Your task to perform on an android device: turn notification dots on Image 0: 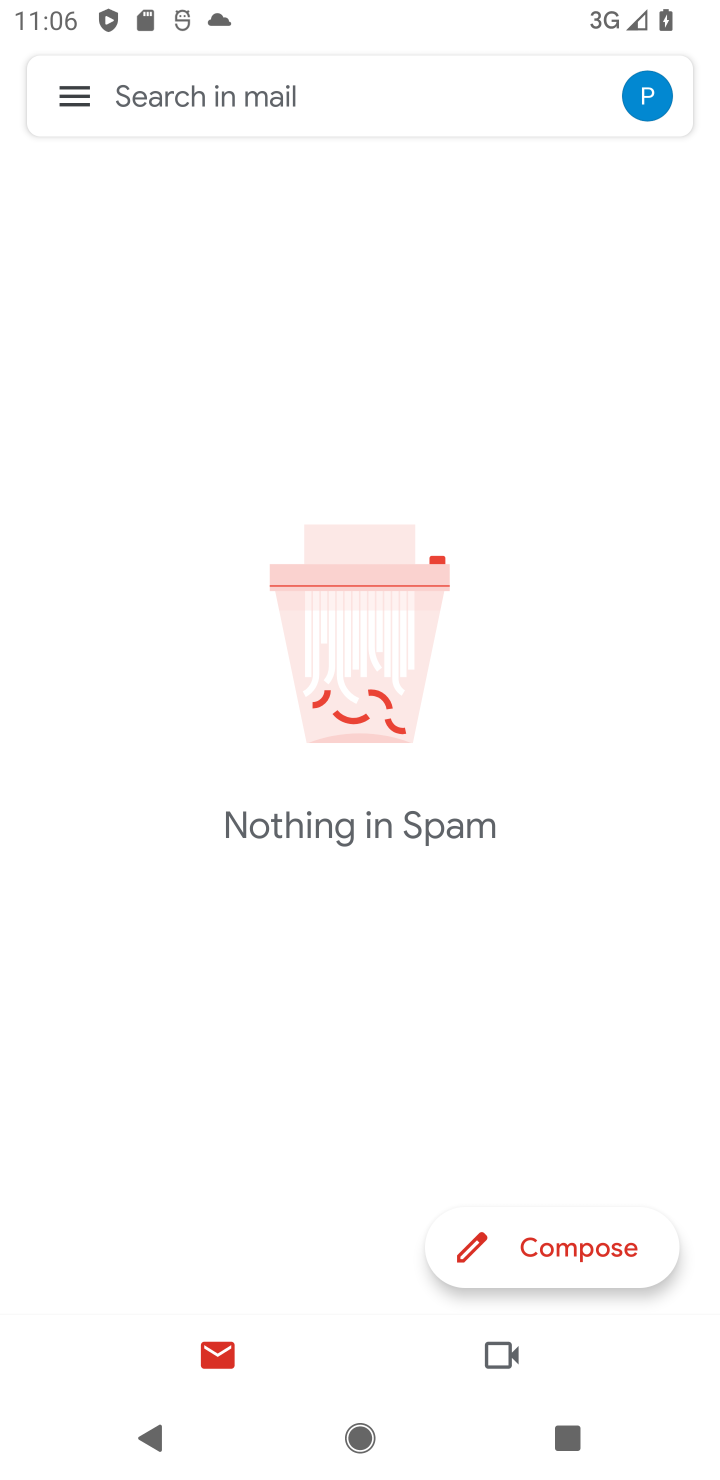
Step 0: press home button
Your task to perform on an android device: turn notification dots on Image 1: 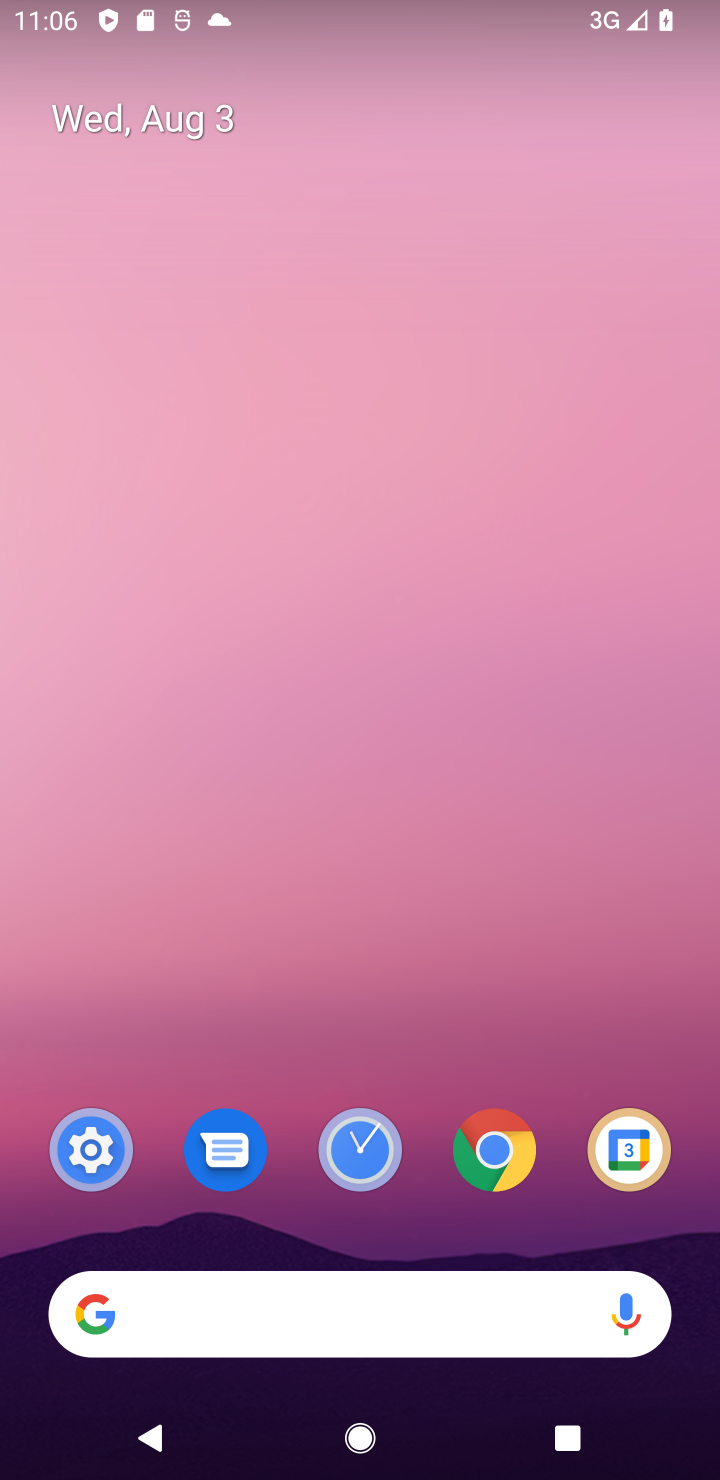
Step 1: drag from (540, 1052) to (561, 289)
Your task to perform on an android device: turn notification dots on Image 2: 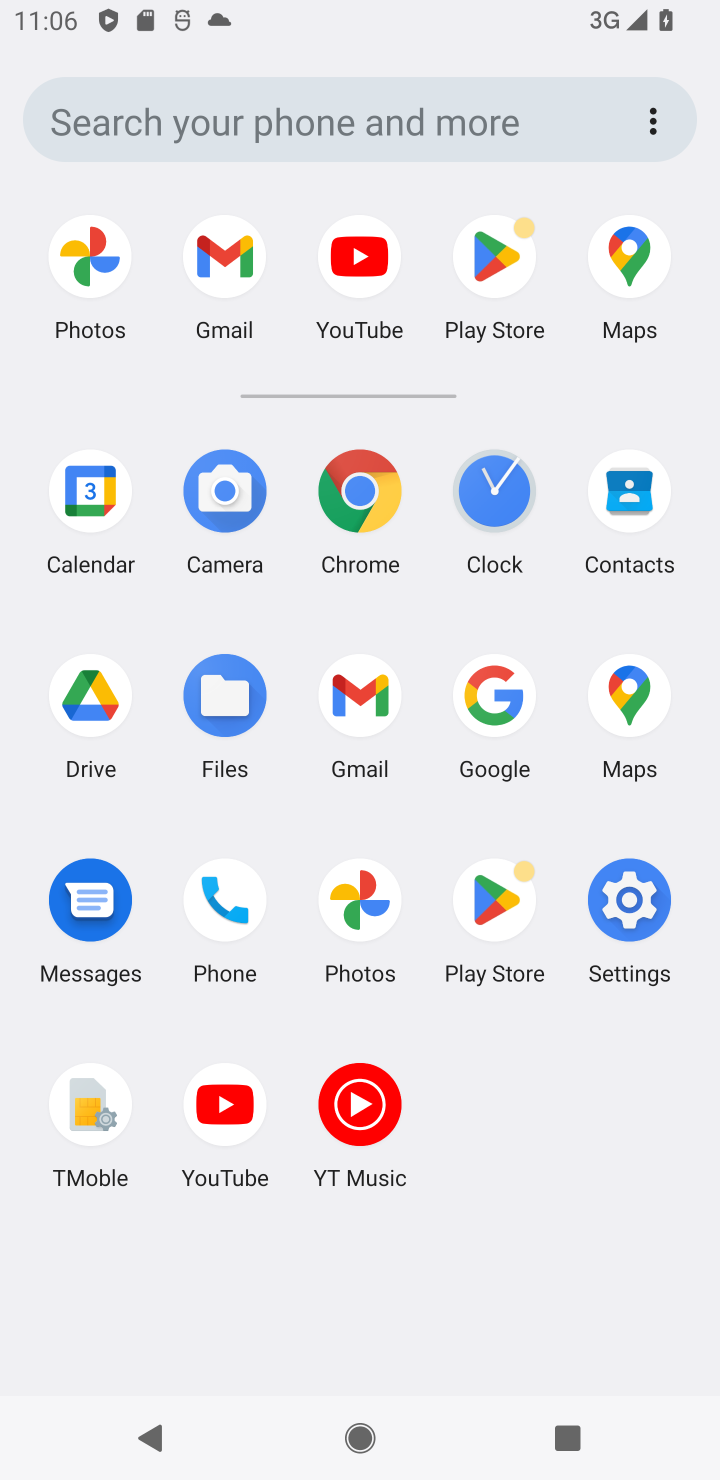
Step 2: click (638, 908)
Your task to perform on an android device: turn notification dots on Image 3: 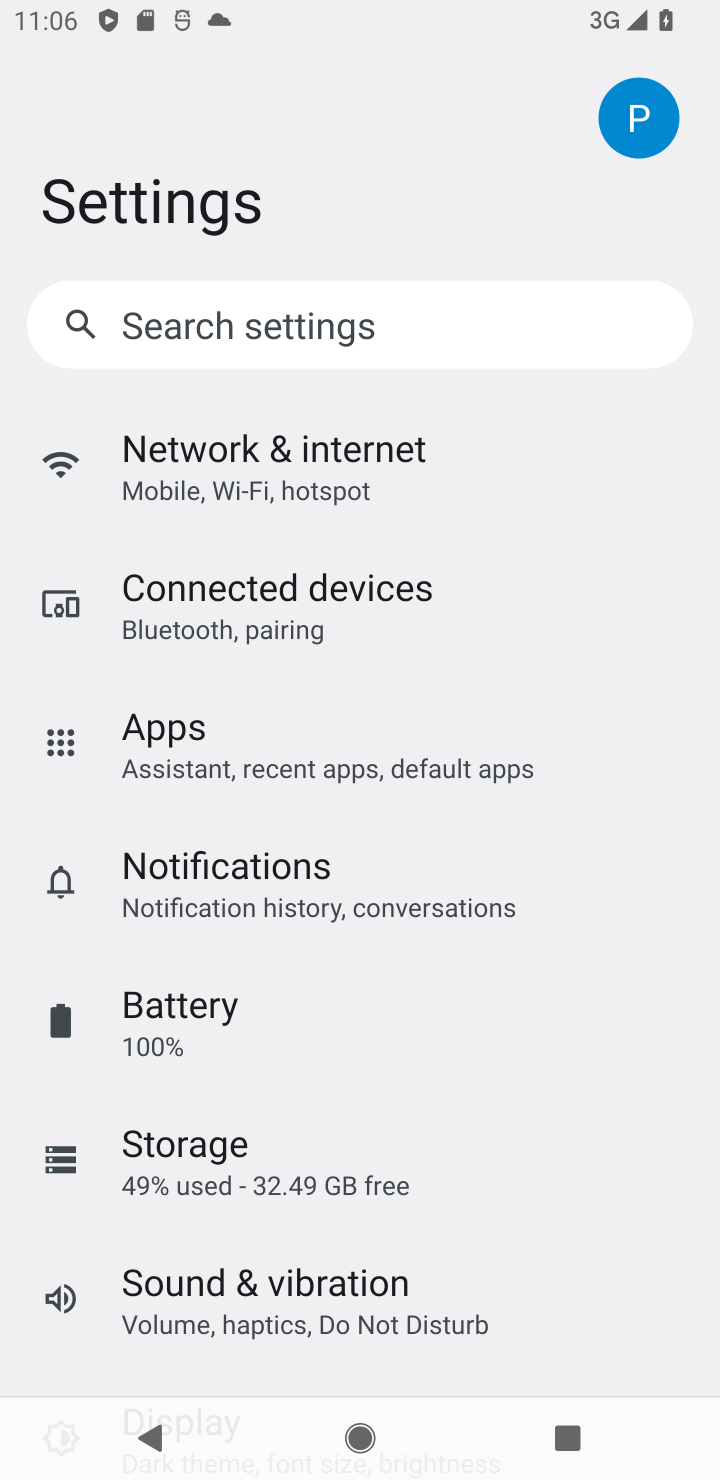
Step 3: drag from (565, 1178) to (570, 949)
Your task to perform on an android device: turn notification dots on Image 4: 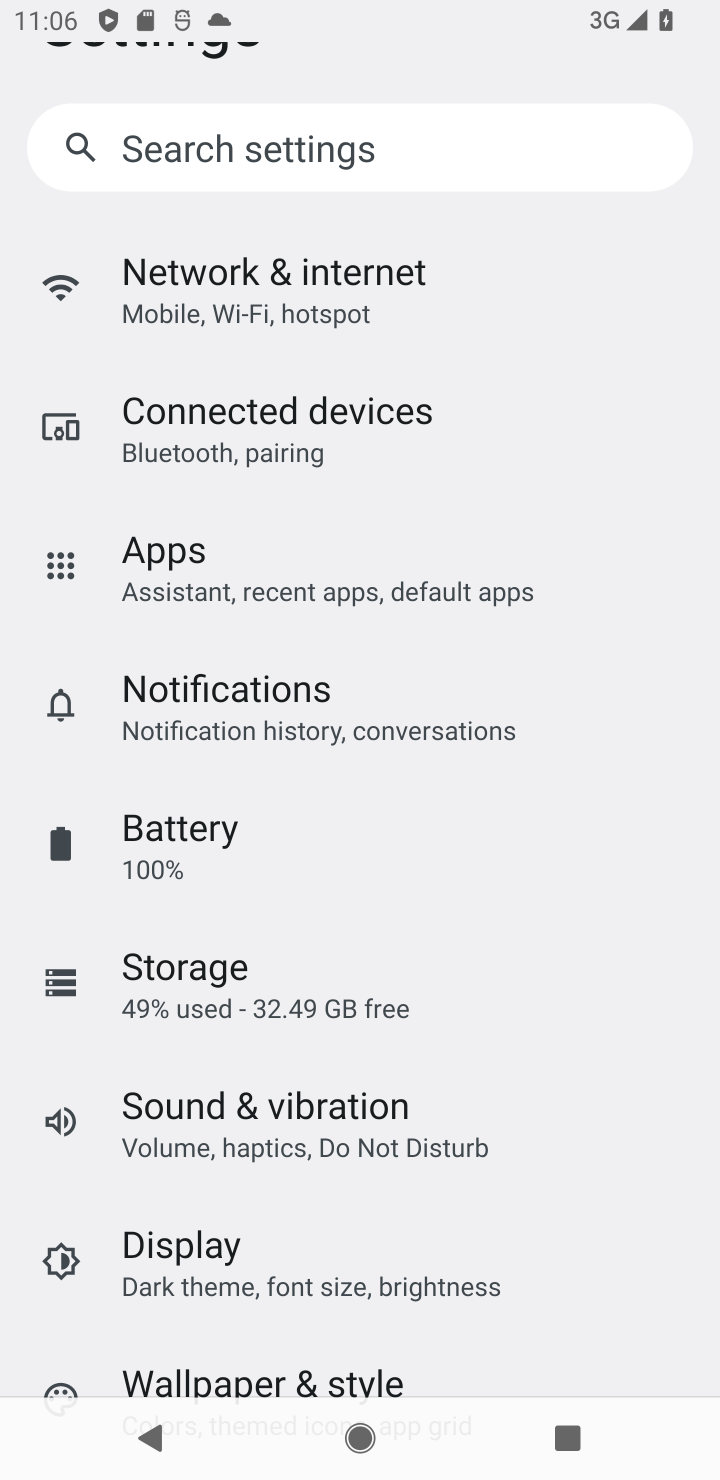
Step 4: drag from (536, 1093) to (530, 783)
Your task to perform on an android device: turn notification dots on Image 5: 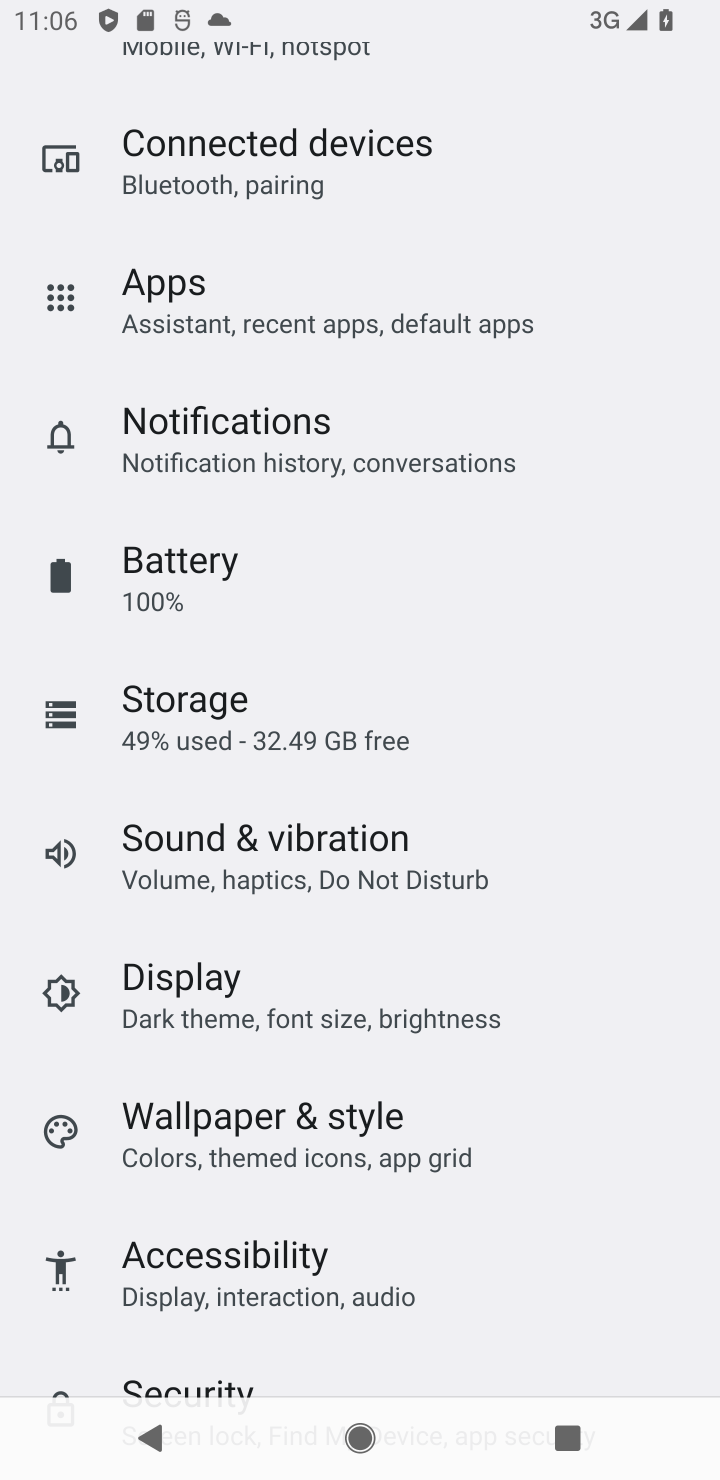
Step 5: drag from (571, 1090) to (575, 829)
Your task to perform on an android device: turn notification dots on Image 6: 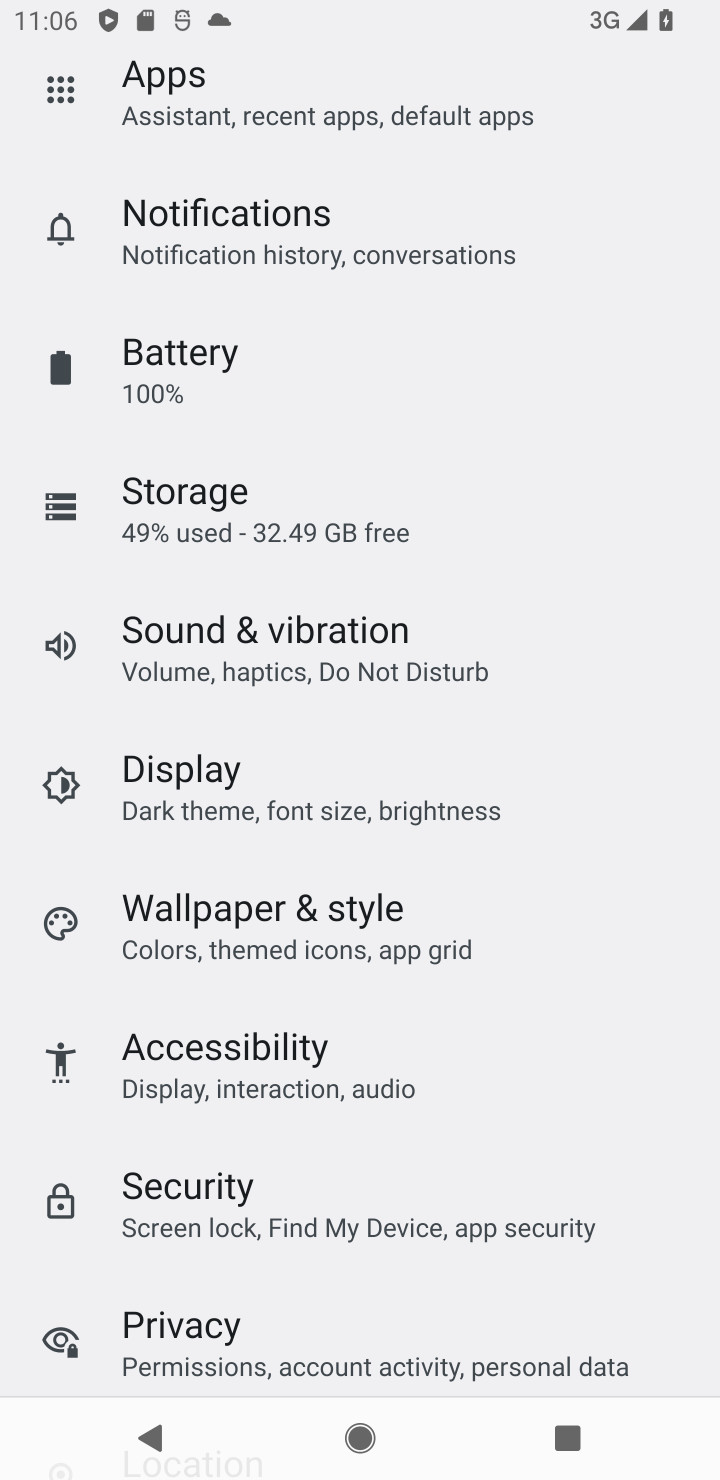
Step 6: drag from (543, 1243) to (578, 902)
Your task to perform on an android device: turn notification dots on Image 7: 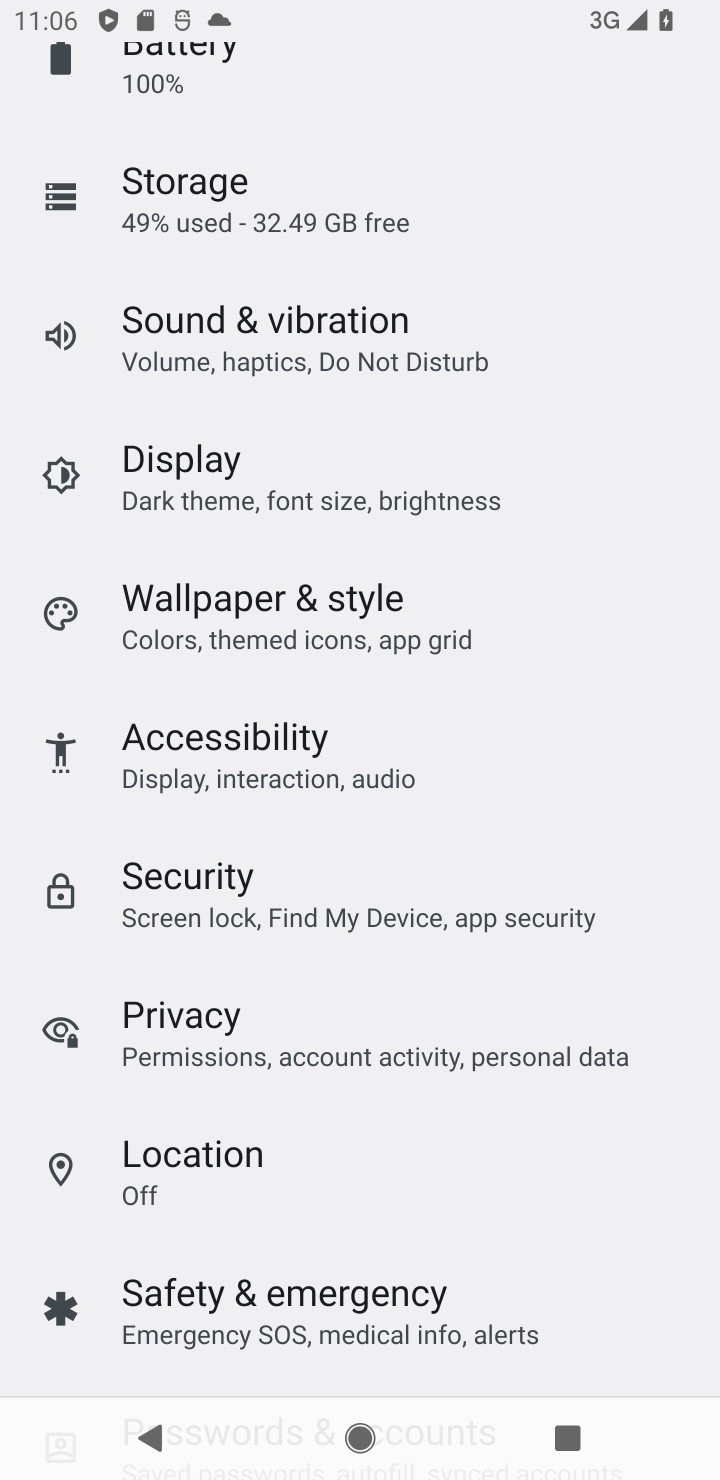
Step 7: drag from (570, 1247) to (600, 995)
Your task to perform on an android device: turn notification dots on Image 8: 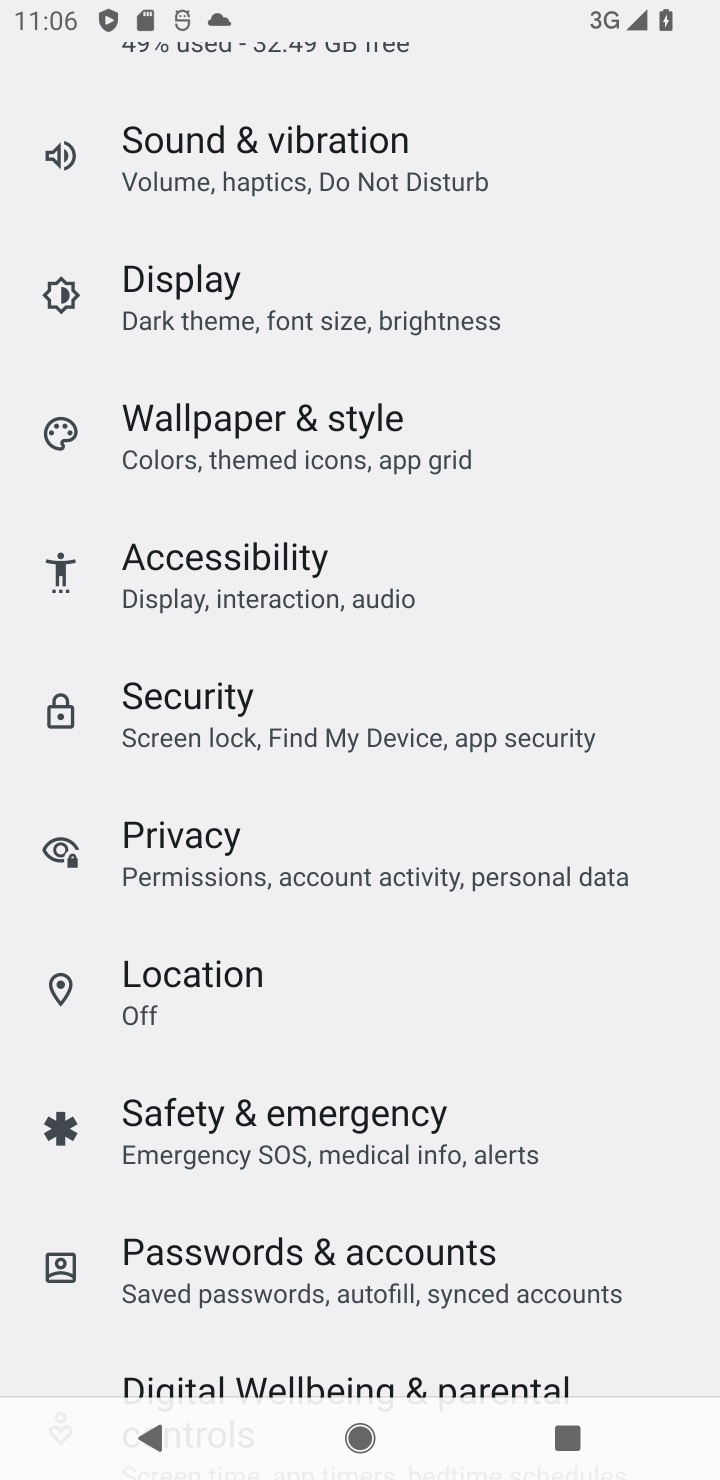
Step 8: drag from (582, 1082) to (606, 744)
Your task to perform on an android device: turn notification dots on Image 9: 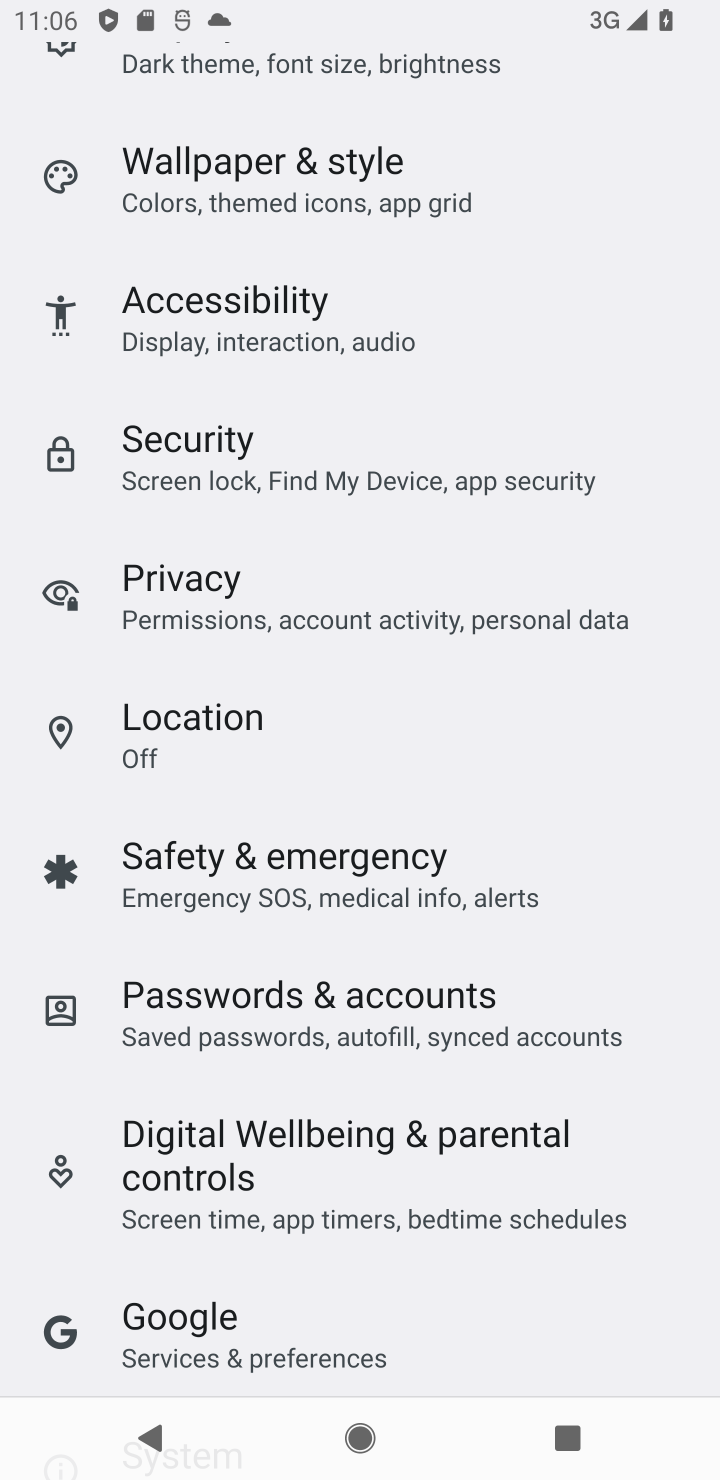
Step 9: drag from (568, 1021) to (568, 682)
Your task to perform on an android device: turn notification dots on Image 10: 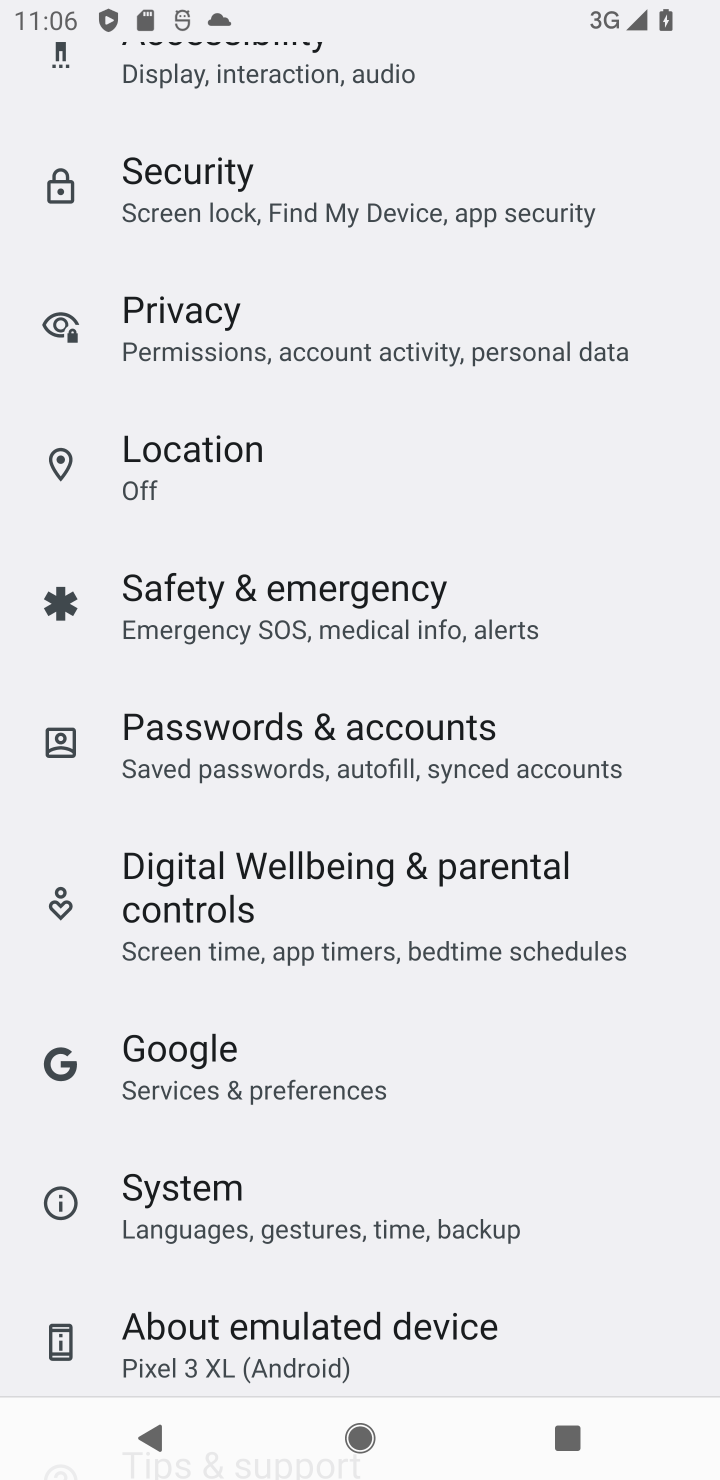
Step 10: drag from (557, 1131) to (556, 695)
Your task to perform on an android device: turn notification dots on Image 11: 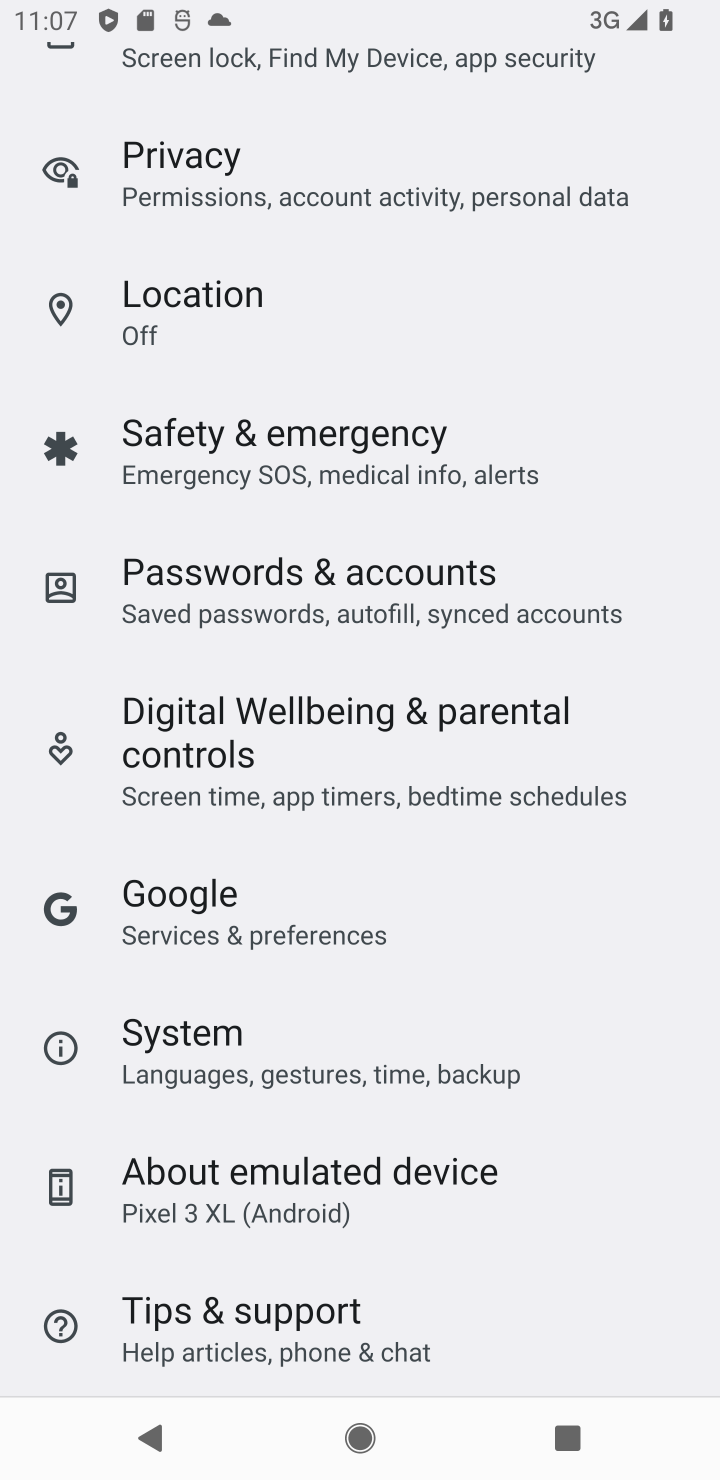
Step 11: drag from (570, 1035) to (566, 721)
Your task to perform on an android device: turn notification dots on Image 12: 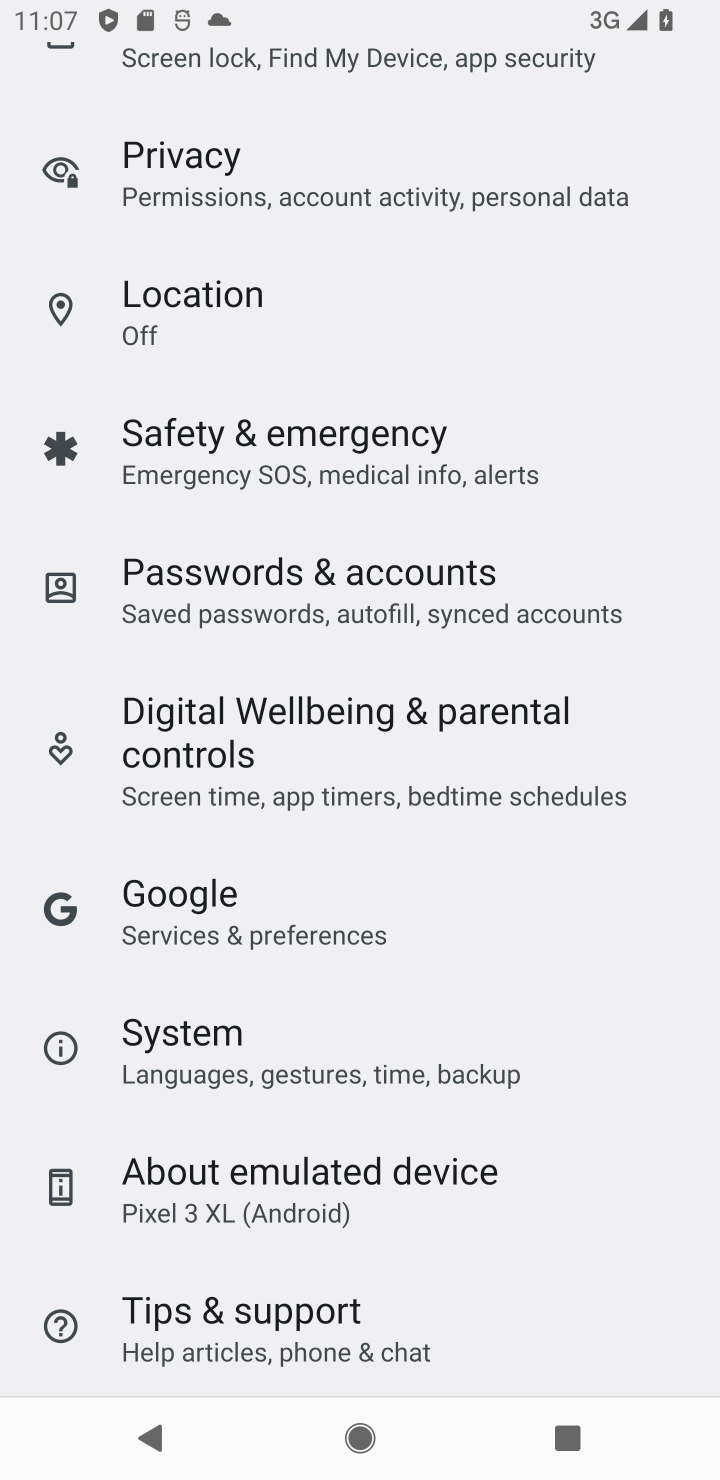
Step 12: drag from (660, 454) to (627, 723)
Your task to perform on an android device: turn notification dots on Image 13: 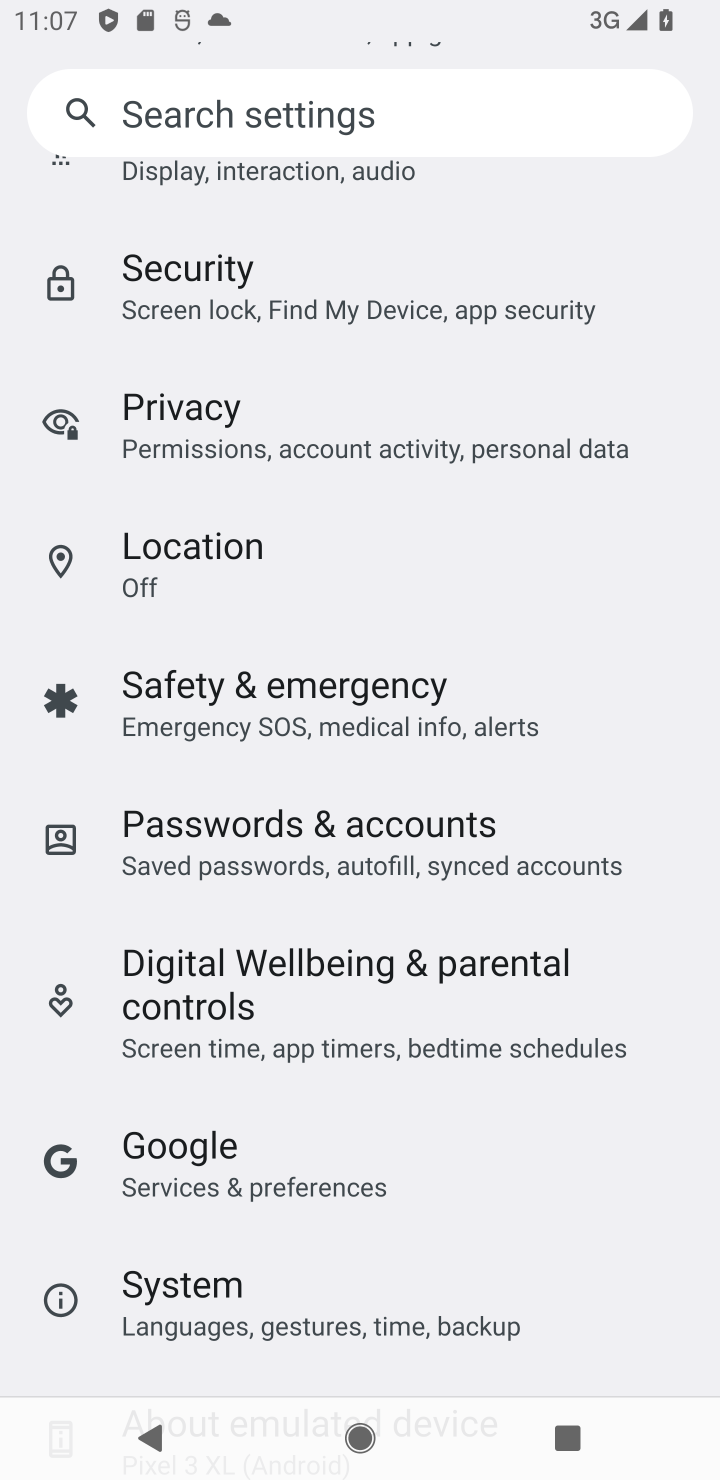
Step 13: drag from (627, 518) to (610, 813)
Your task to perform on an android device: turn notification dots on Image 14: 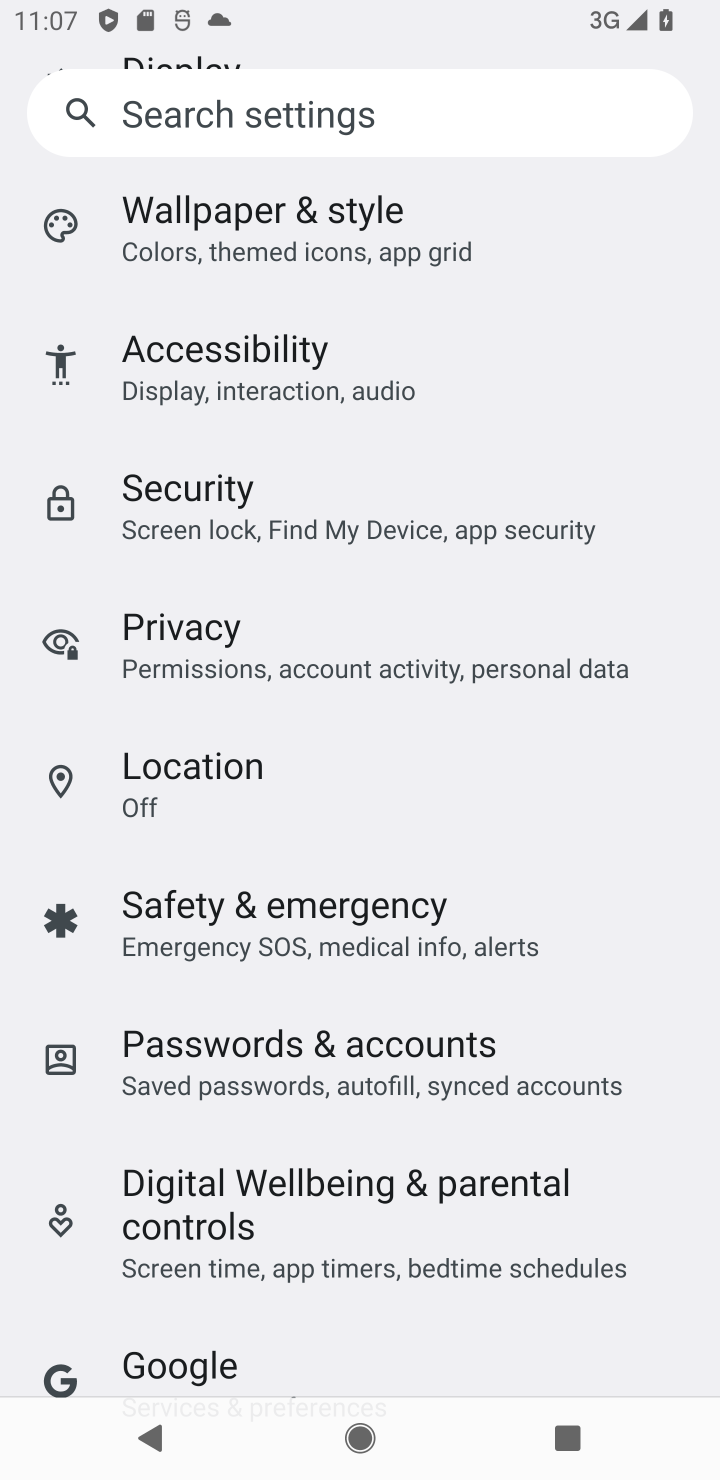
Step 14: drag from (652, 445) to (642, 832)
Your task to perform on an android device: turn notification dots on Image 15: 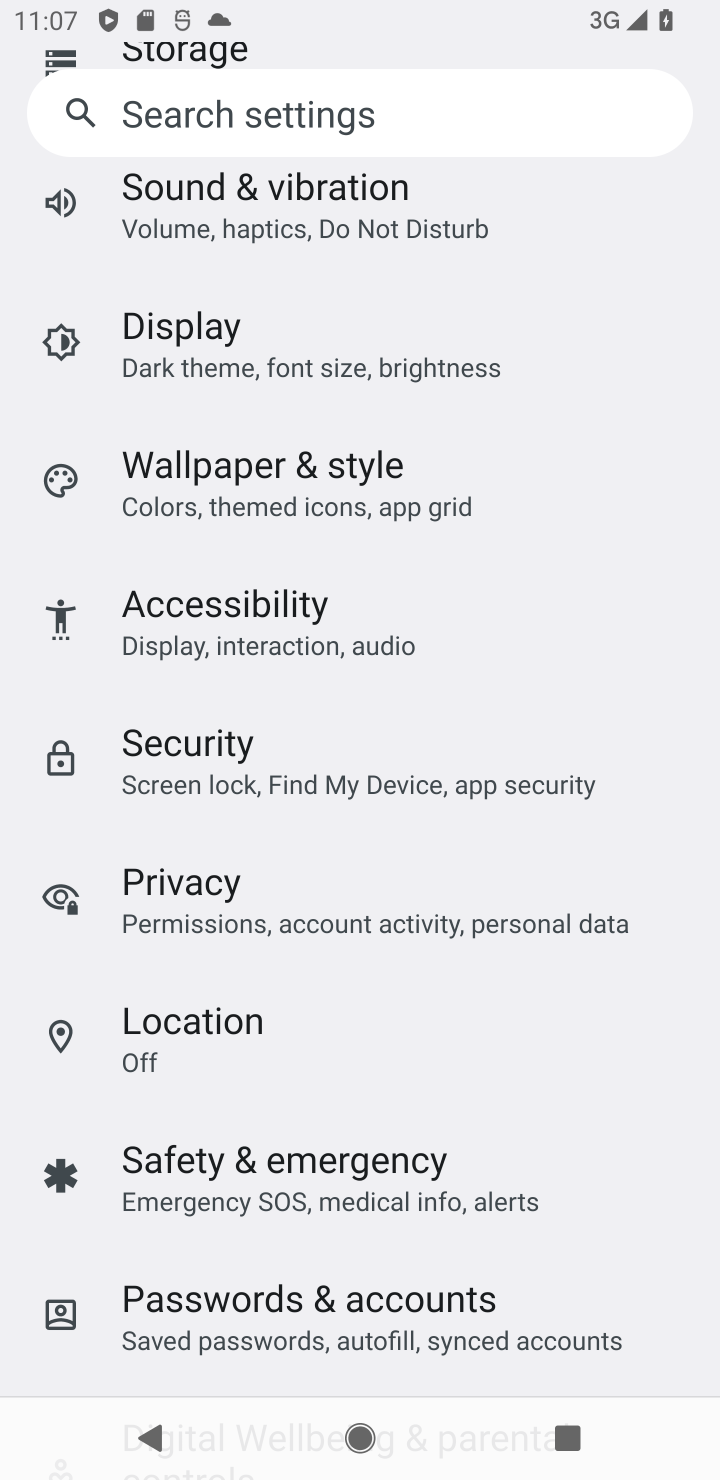
Step 15: drag from (584, 529) to (633, 843)
Your task to perform on an android device: turn notification dots on Image 16: 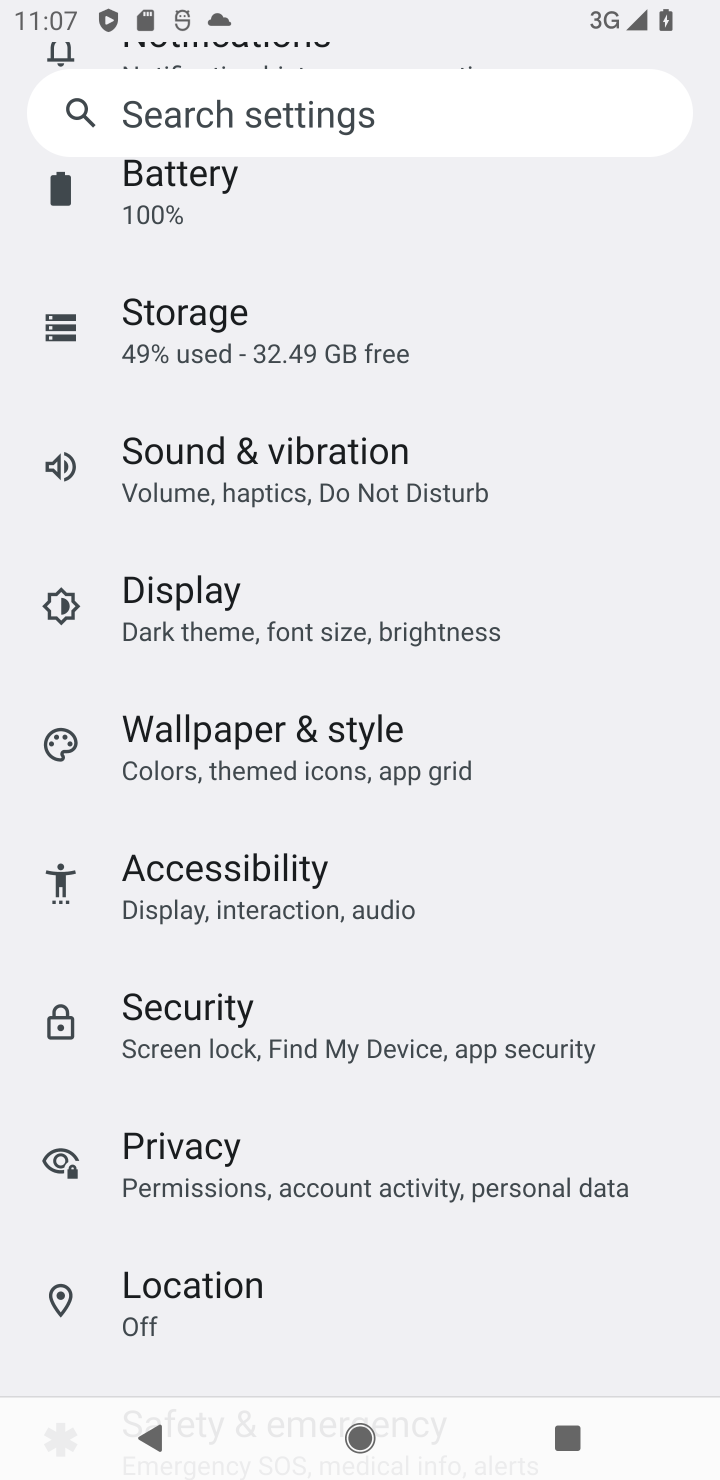
Step 16: drag from (614, 464) to (612, 776)
Your task to perform on an android device: turn notification dots on Image 17: 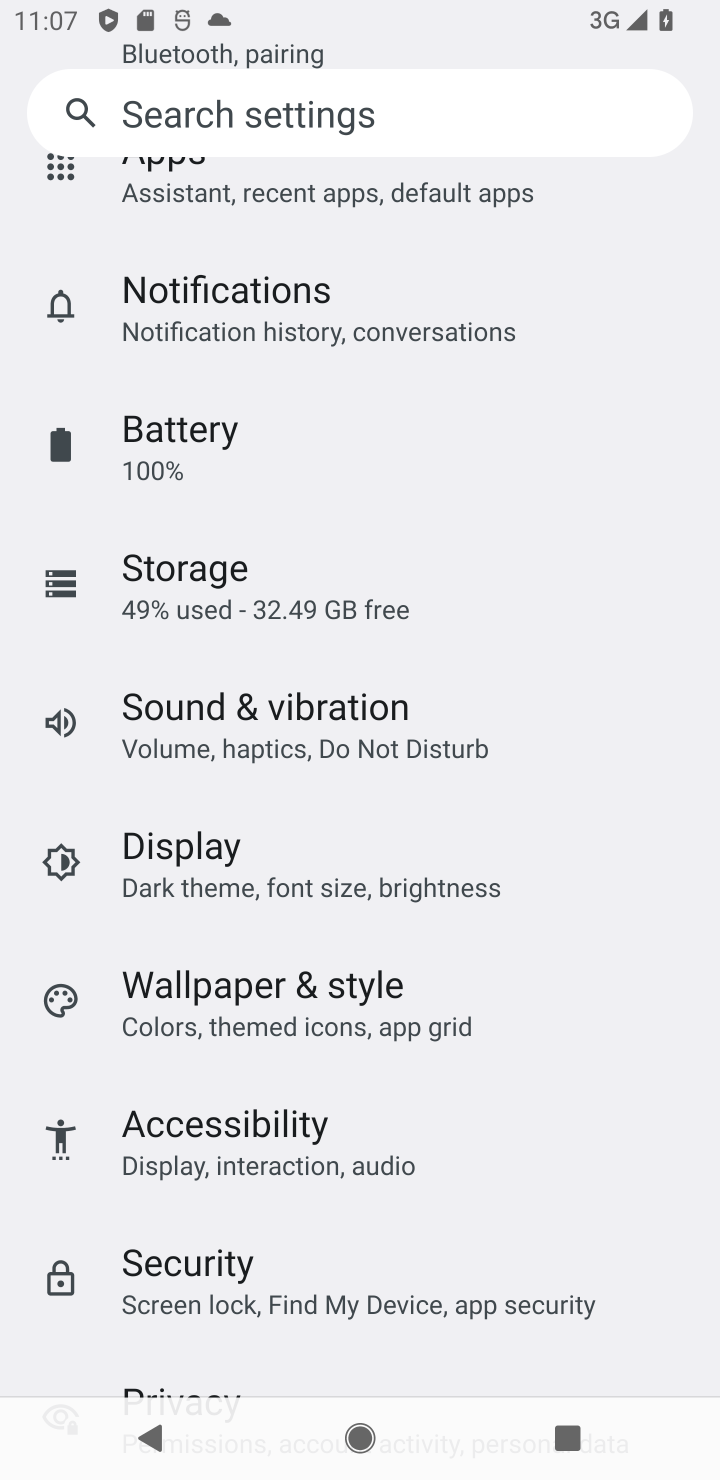
Step 17: drag from (602, 346) to (583, 727)
Your task to perform on an android device: turn notification dots on Image 18: 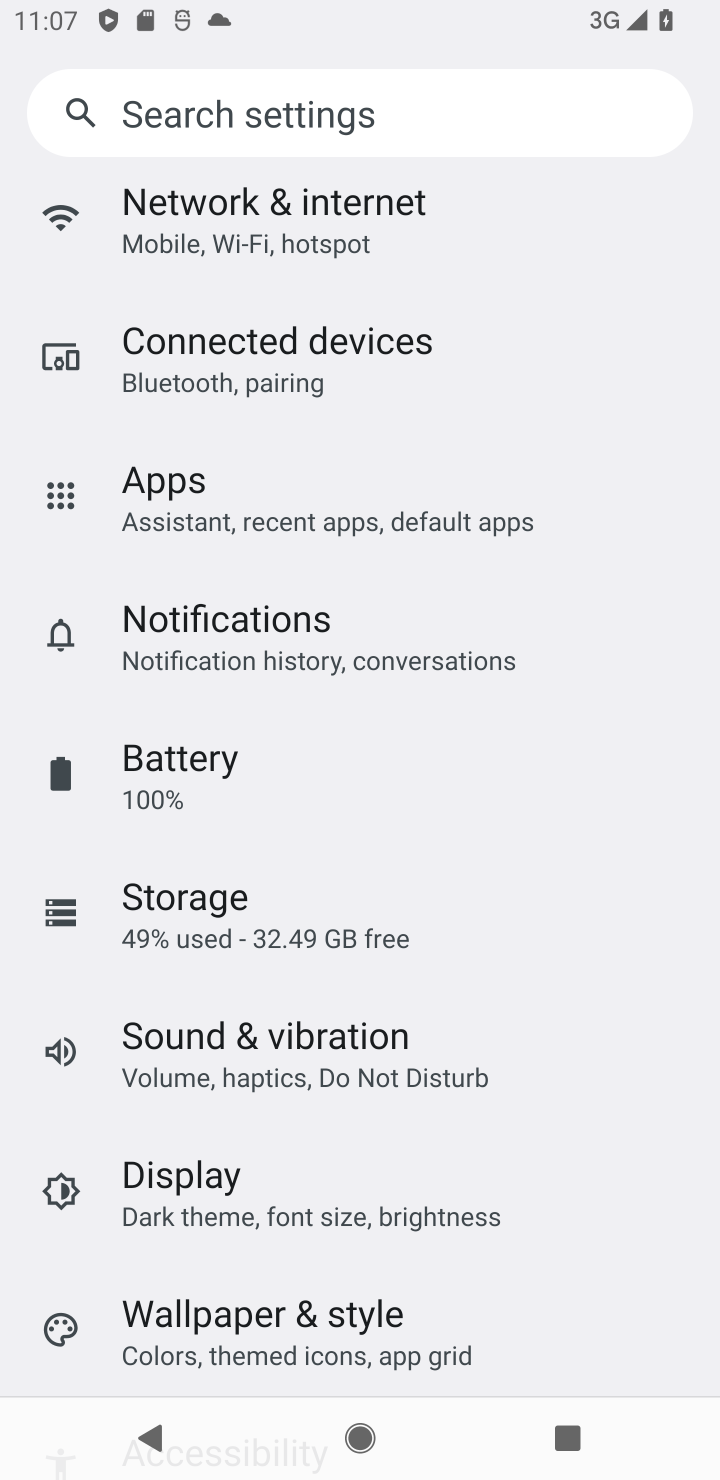
Step 18: click (429, 619)
Your task to perform on an android device: turn notification dots on Image 19: 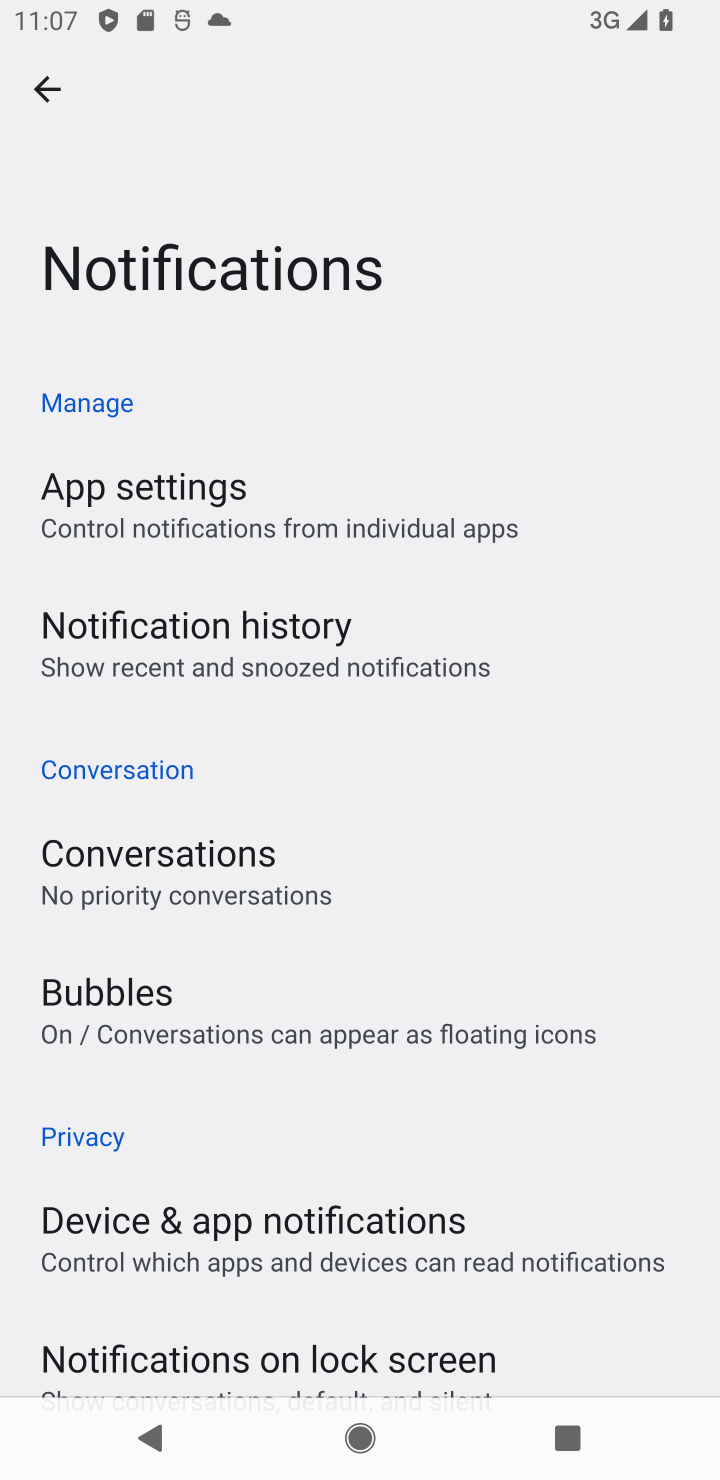
Step 19: task complete